Your task to perform on an android device: Open network settings Image 0: 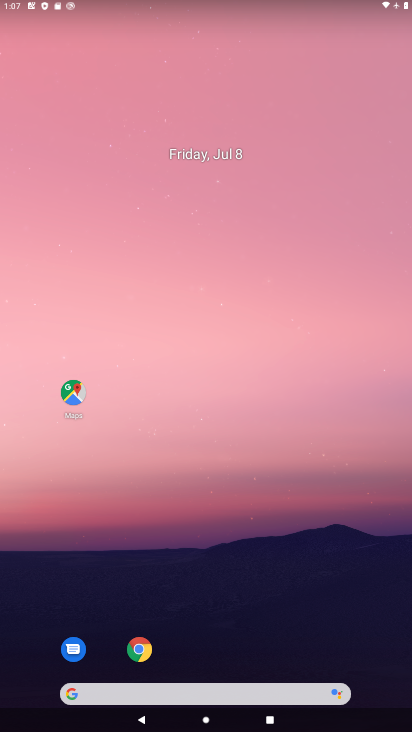
Step 0: drag from (31, 711) to (237, 9)
Your task to perform on an android device: Open network settings Image 1: 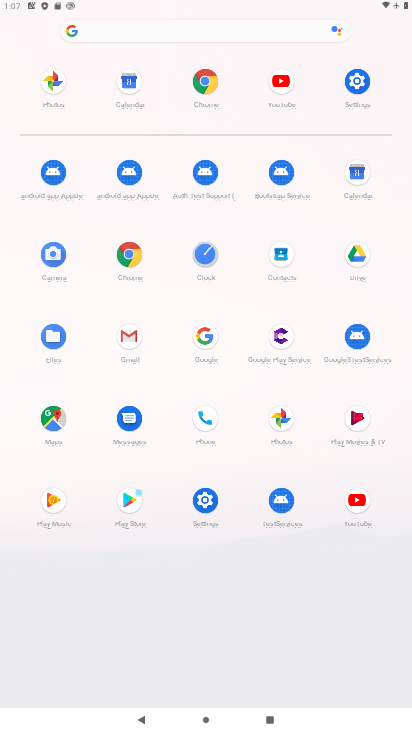
Step 1: click (209, 508)
Your task to perform on an android device: Open network settings Image 2: 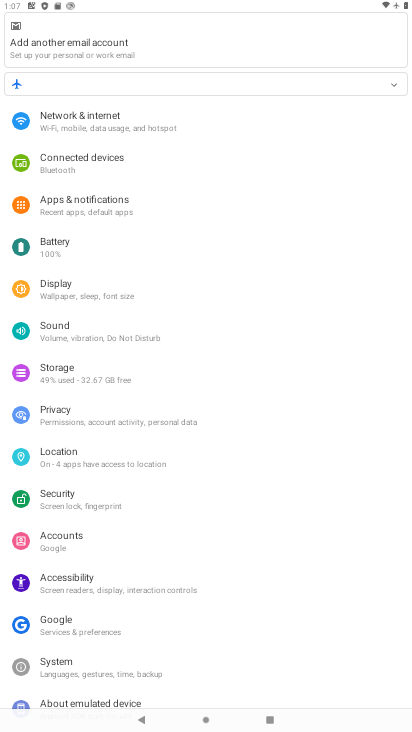
Step 2: click (57, 128)
Your task to perform on an android device: Open network settings Image 3: 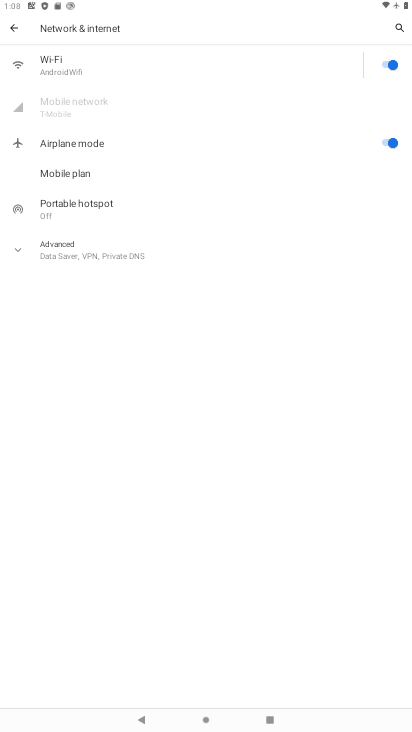
Step 3: task complete